Your task to perform on an android device: Open the phone app and click the voicemail tab. Image 0: 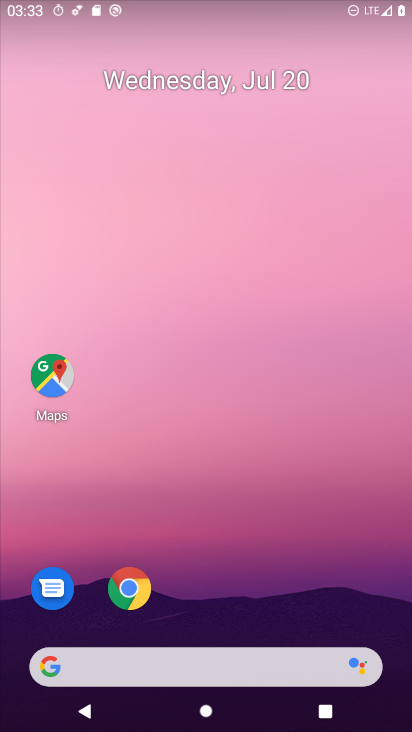
Step 0: drag from (216, 634) to (142, 114)
Your task to perform on an android device: Open the phone app and click the voicemail tab. Image 1: 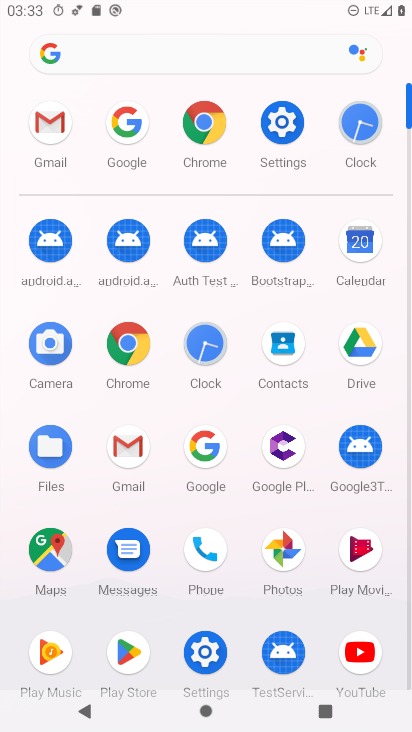
Step 1: click (200, 563)
Your task to perform on an android device: Open the phone app and click the voicemail tab. Image 2: 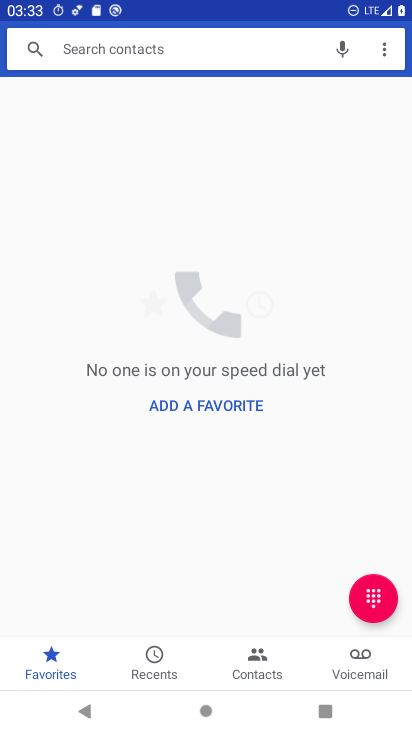
Step 2: click (351, 662)
Your task to perform on an android device: Open the phone app and click the voicemail tab. Image 3: 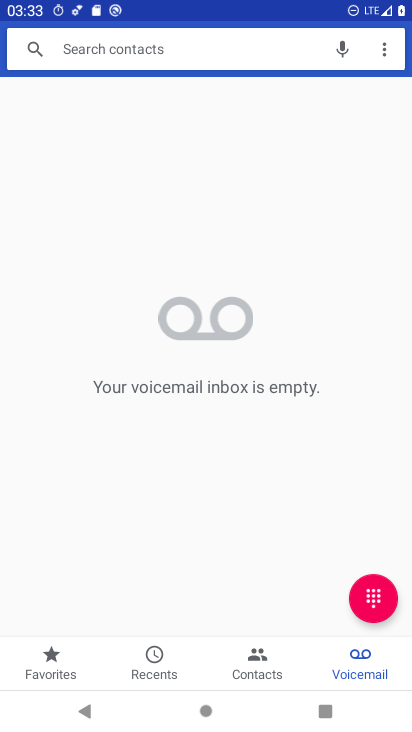
Step 3: task complete